Your task to perform on an android device: check android version Image 0: 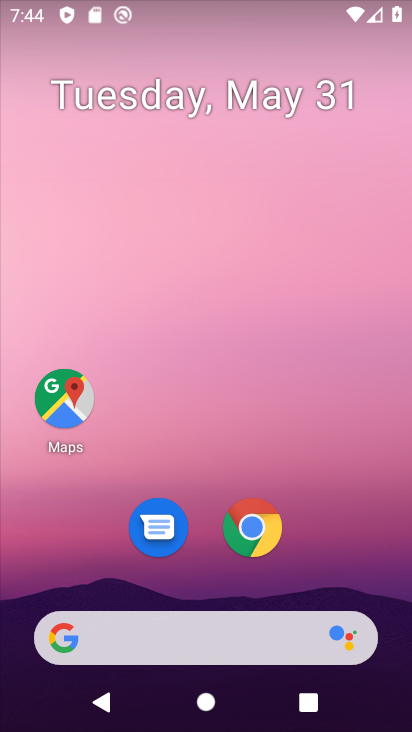
Step 0: drag from (314, 470) to (215, 23)
Your task to perform on an android device: check android version Image 1: 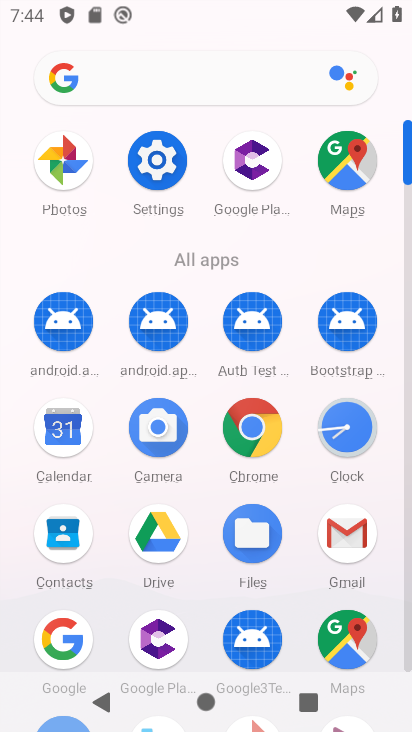
Step 1: click (157, 171)
Your task to perform on an android device: check android version Image 2: 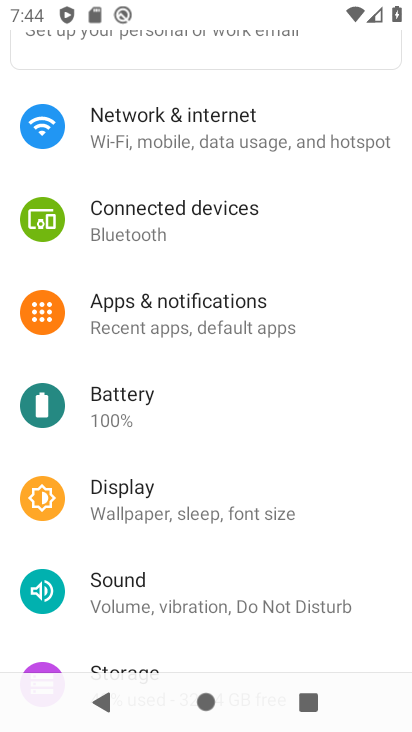
Step 2: drag from (201, 422) to (146, 110)
Your task to perform on an android device: check android version Image 3: 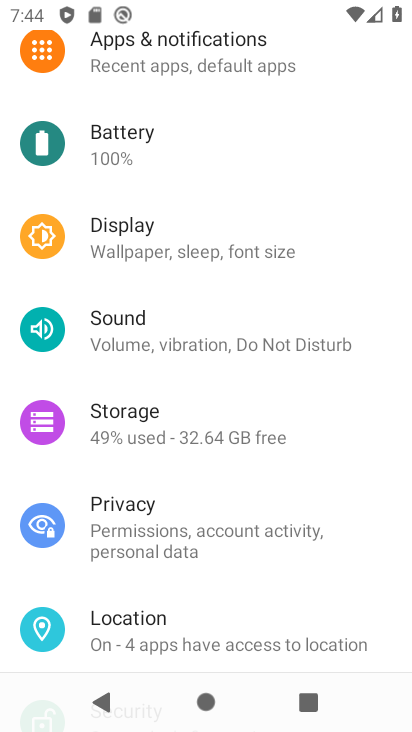
Step 3: drag from (167, 464) to (165, 185)
Your task to perform on an android device: check android version Image 4: 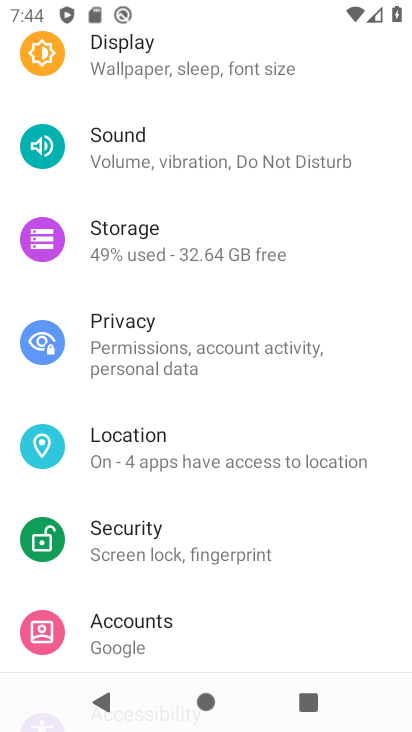
Step 4: drag from (186, 501) to (130, 173)
Your task to perform on an android device: check android version Image 5: 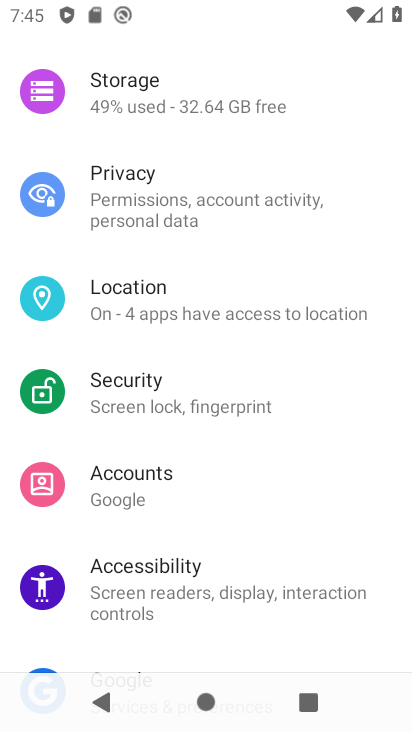
Step 5: drag from (209, 544) to (191, 199)
Your task to perform on an android device: check android version Image 6: 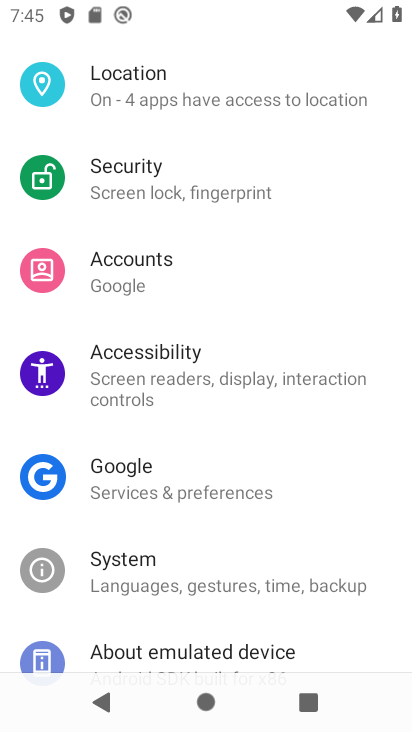
Step 6: drag from (205, 459) to (204, 191)
Your task to perform on an android device: check android version Image 7: 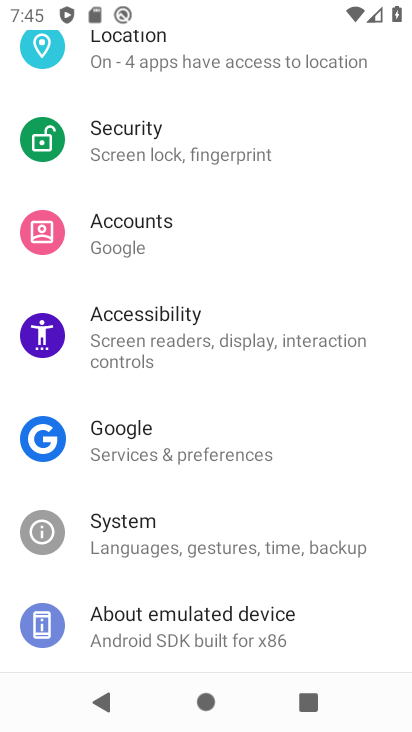
Step 7: click (174, 613)
Your task to perform on an android device: check android version Image 8: 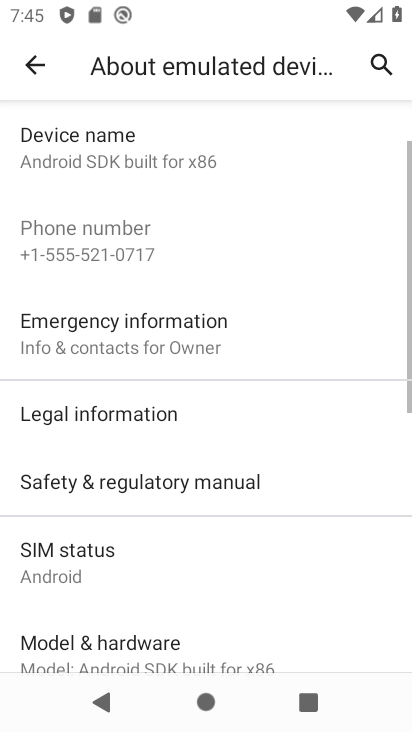
Step 8: task complete